Your task to perform on an android device: make emails show in primary in the gmail app Image 0: 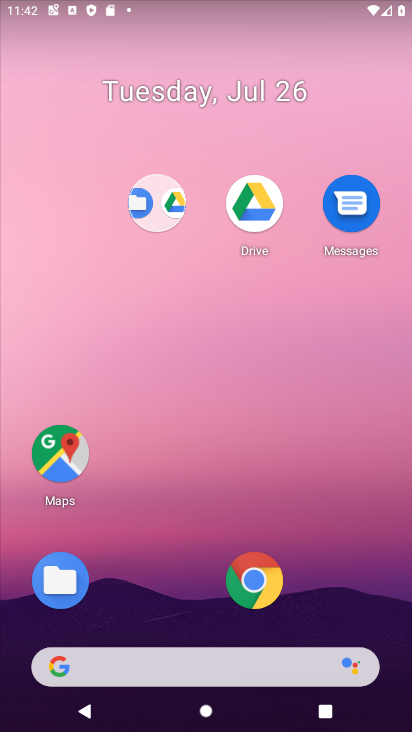
Step 0: drag from (154, 601) to (296, 19)
Your task to perform on an android device: make emails show in primary in the gmail app Image 1: 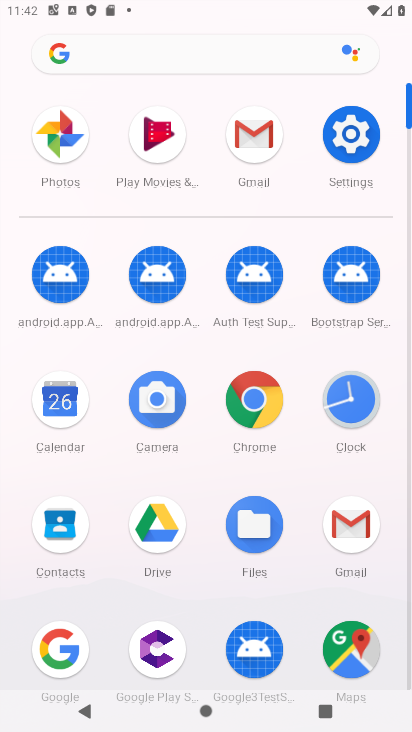
Step 1: click (259, 211)
Your task to perform on an android device: make emails show in primary in the gmail app Image 2: 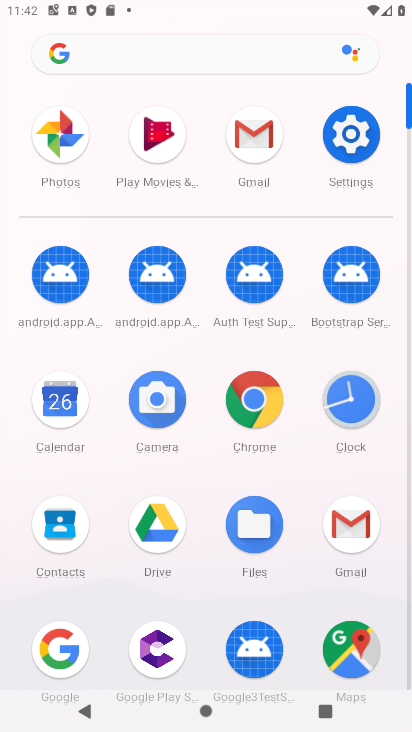
Step 2: click (255, 170)
Your task to perform on an android device: make emails show in primary in the gmail app Image 3: 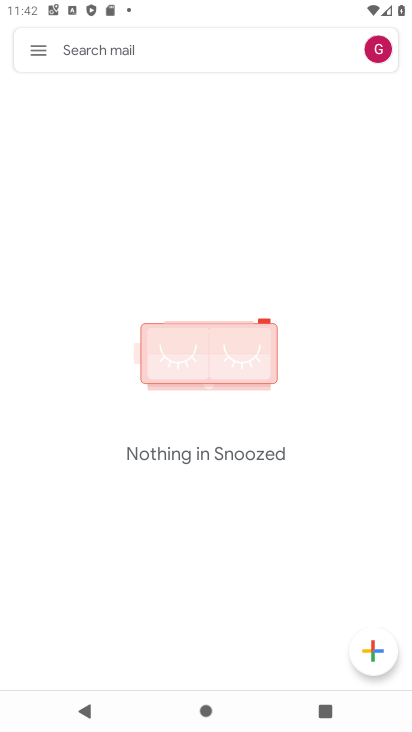
Step 3: click (46, 55)
Your task to perform on an android device: make emails show in primary in the gmail app Image 4: 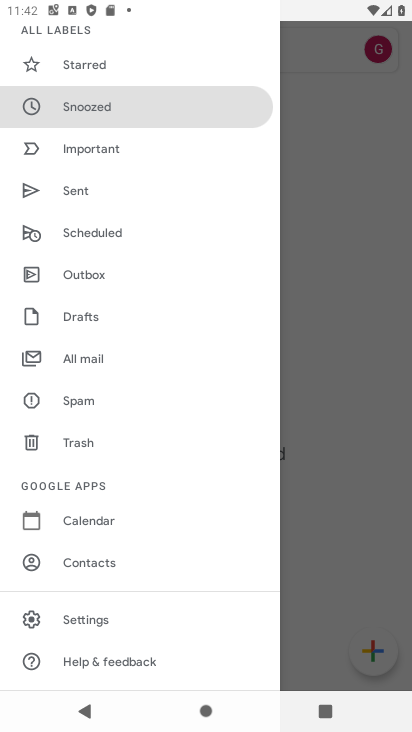
Step 4: task complete